Your task to perform on an android device: Open Google Chrome Image 0: 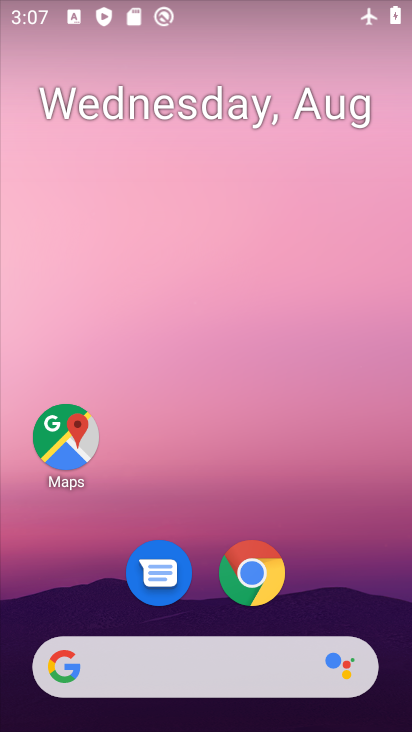
Step 0: click (249, 570)
Your task to perform on an android device: Open Google Chrome Image 1: 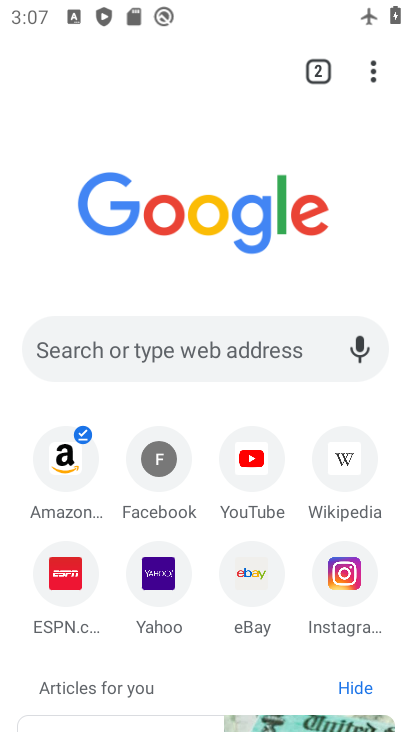
Step 1: task complete